Your task to perform on an android device: turn off improve location accuracy Image 0: 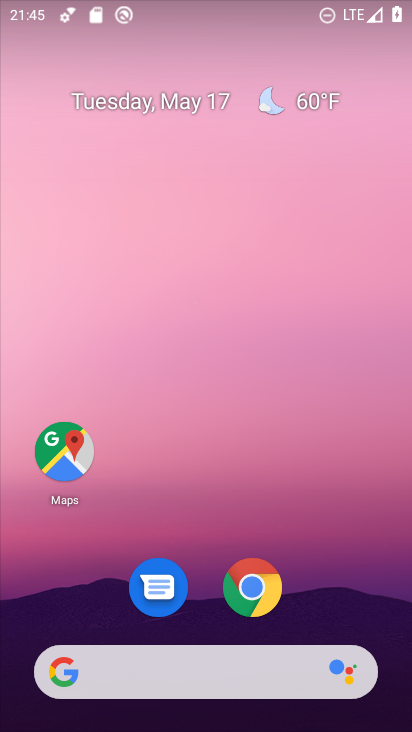
Step 0: drag from (236, 539) to (126, 146)
Your task to perform on an android device: turn off improve location accuracy Image 1: 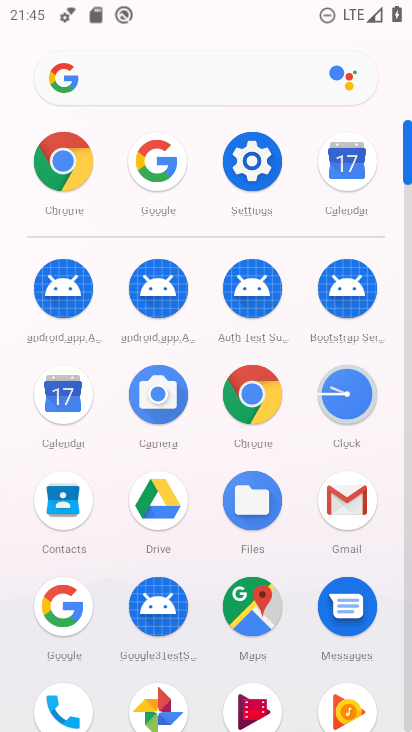
Step 1: click (254, 177)
Your task to perform on an android device: turn off improve location accuracy Image 2: 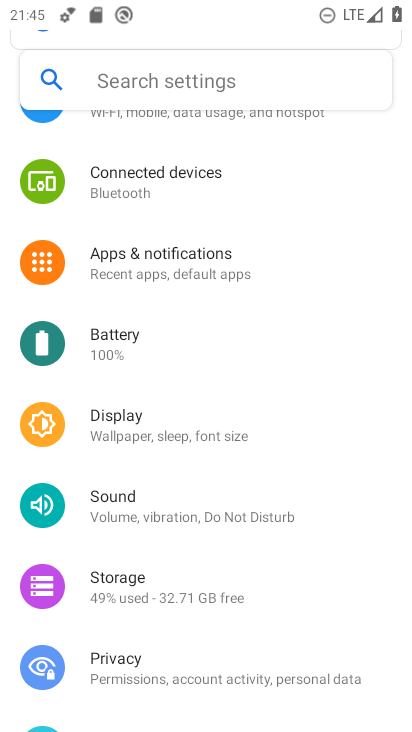
Step 2: drag from (199, 308) to (185, 96)
Your task to perform on an android device: turn off improve location accuracy Image 3: 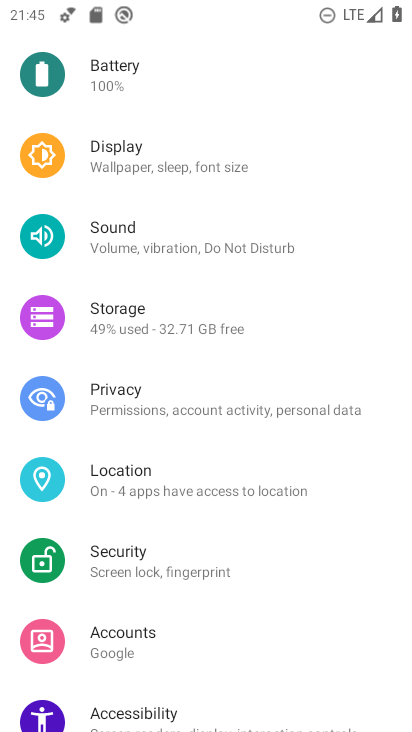
Step 3: drag from (209, 523) to (218, 345)
Your task to perform on an android device: turn off improve location accuracy Image 4: 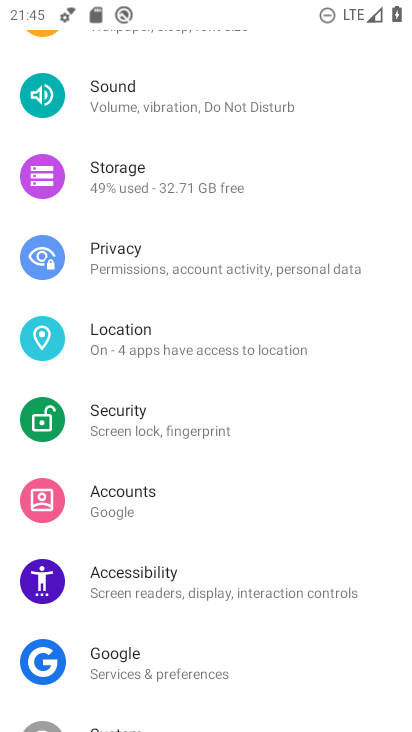
Step 4: click (184, 346)
Your task to perform on an android device: turn off improve location accuracy Image 5: 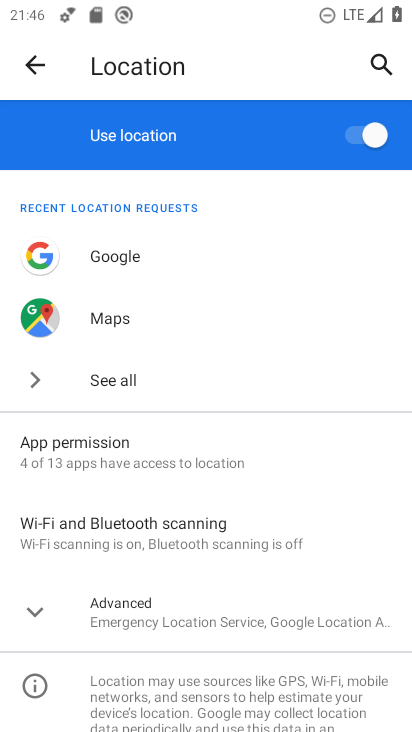
Step 5: click (125, 600)
Your task to perform on an android device: turn off improve location accuracy Image 6: 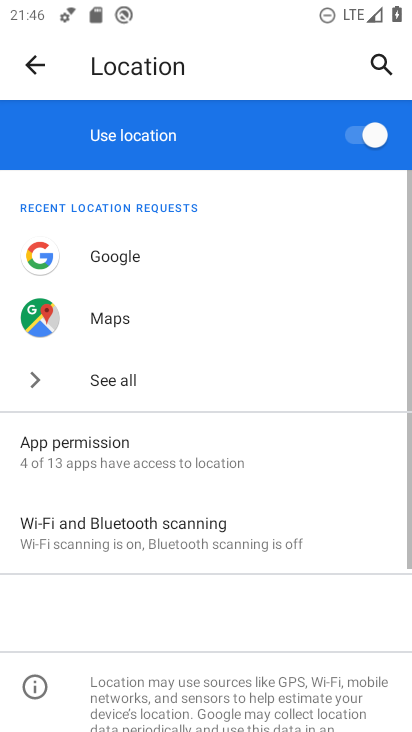
Step 6: drag from (137, 553) to (230, 123)
Your task to perform on an android device: turn off improve location accuracy Image 7: 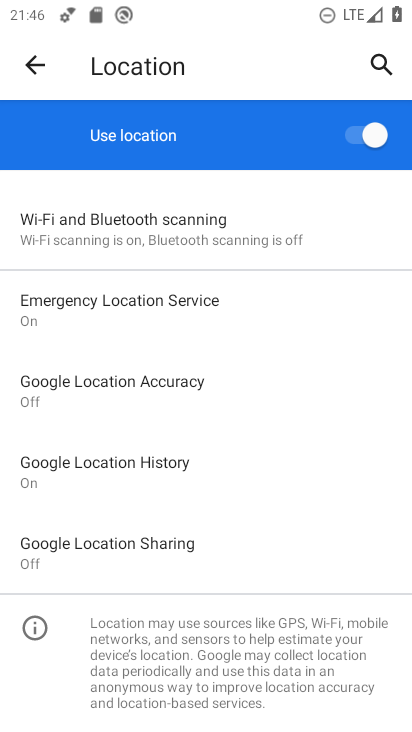
Step 7: click (165, 390)
Your task to perform on an android device: turn off improve location accuracy Image 8: 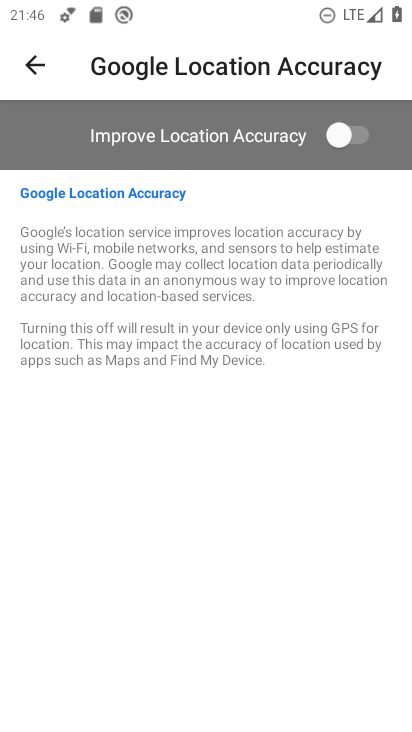
Step 8: task complete